Your task to perform on an android device: Open Android settings Image 0: 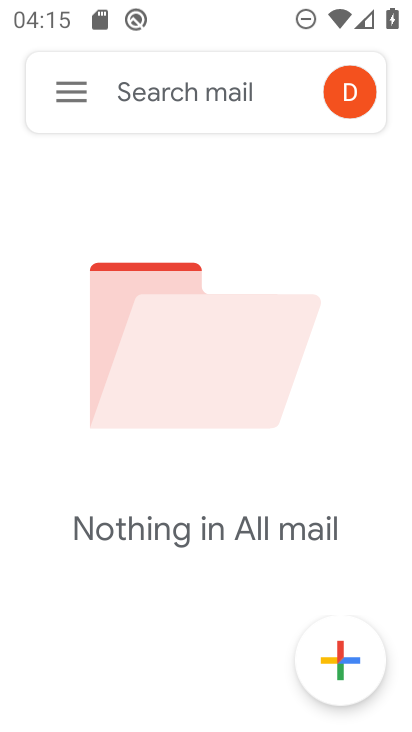
Step 0: press home button
Your task to perform on an android device: Open Android settings Image 1: 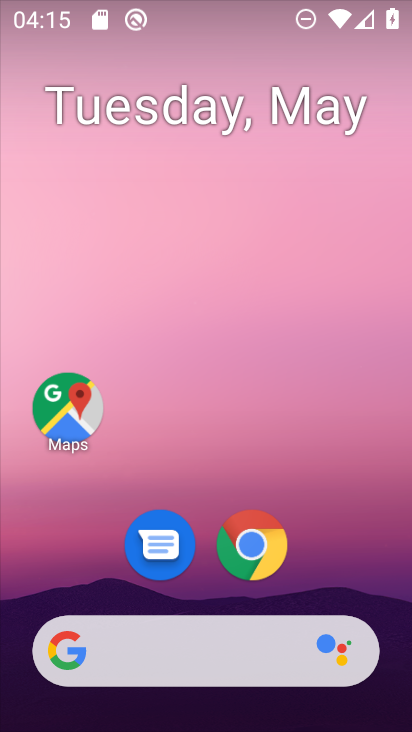
Step 1: drag from (397, 610) to (351, 64)
Your task to perform on an android device: Open Android settings Image 2: 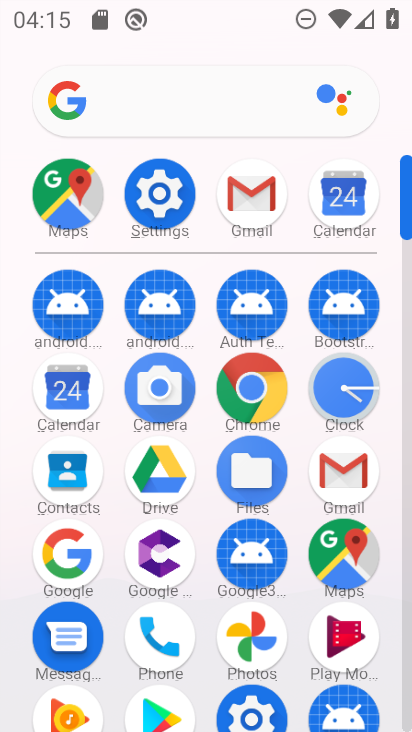
Step 2: click (406, 648)
Your task to perform on an android device: Open Android settings Image 3: 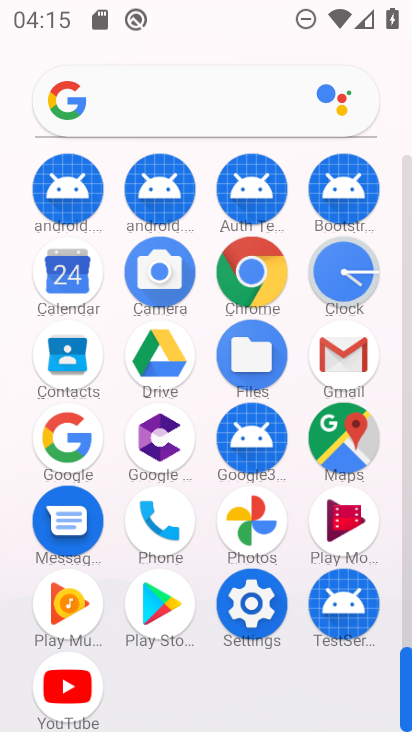
Step 3: click (245, 597)
Your task to perform on an android device: Open Android settings Image 4: 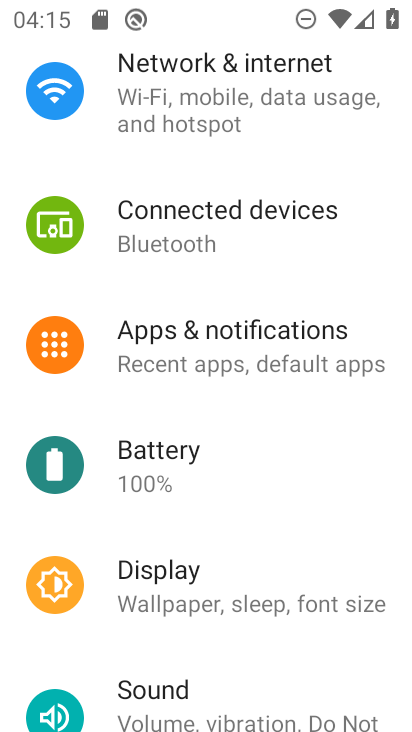
Step 4: drag from (337, 625) to (304, 235)
Your task to perform on an android device: Open Android settings Image 5: 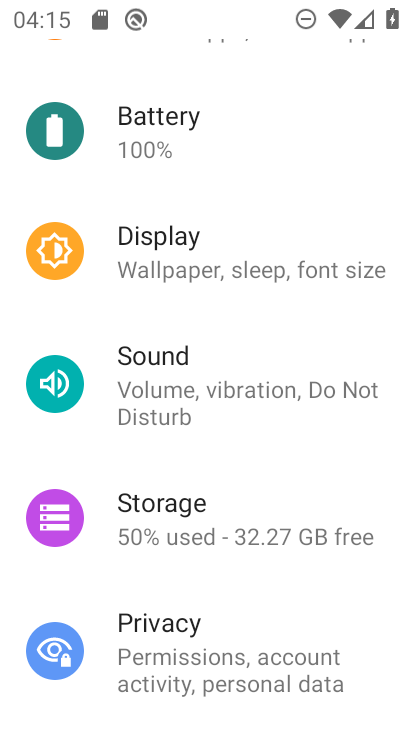
Step 5: drag from (289, 599) to (301, 147)
Your task to perform on an android device: Open Android settings Image 6: 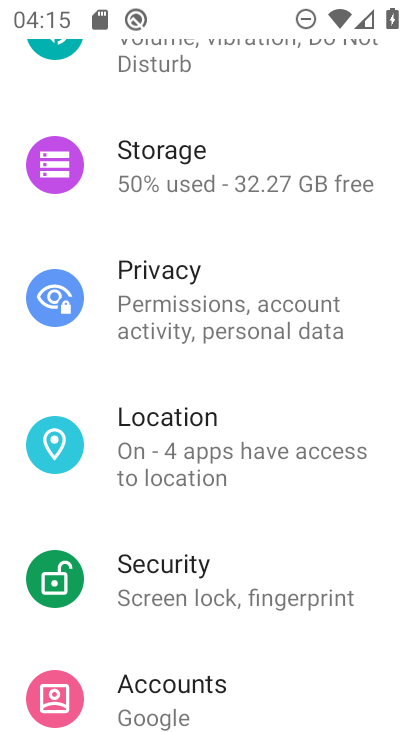
Step 6: drag from (282, 567) to (304, 232)
Your task to perform on an android device: Open Android settings Image 7: 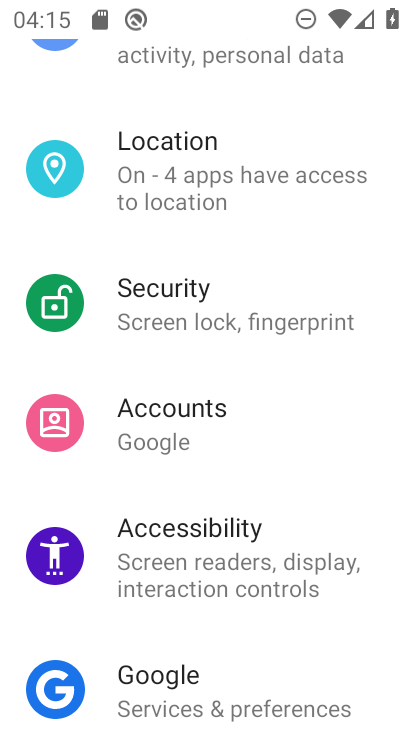
Step 7: drag from (308, 581) to (289, 142)
Your task to perform on an android device: Open Android settings Image 8: 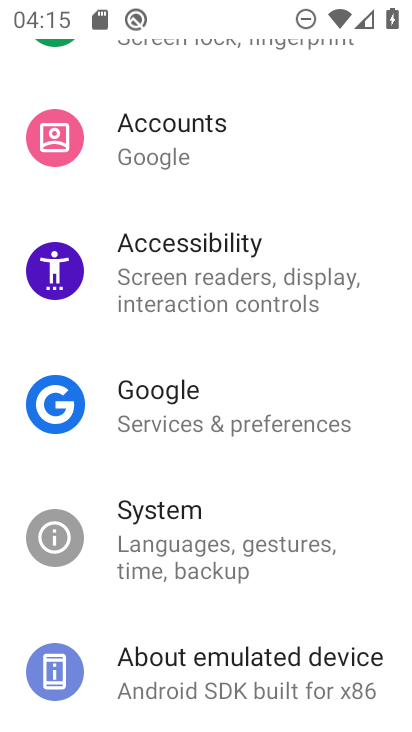
Step 8: drag from (242, 638) to (245, 382)
Your task to perform on an android device: Open Android settings Image 9: 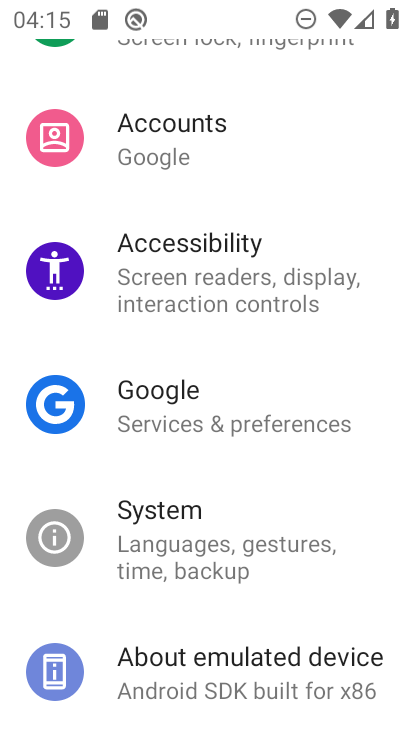
Step 9: click (178, 682)
Your task to perform on an android device: Open Android settings Image 10: 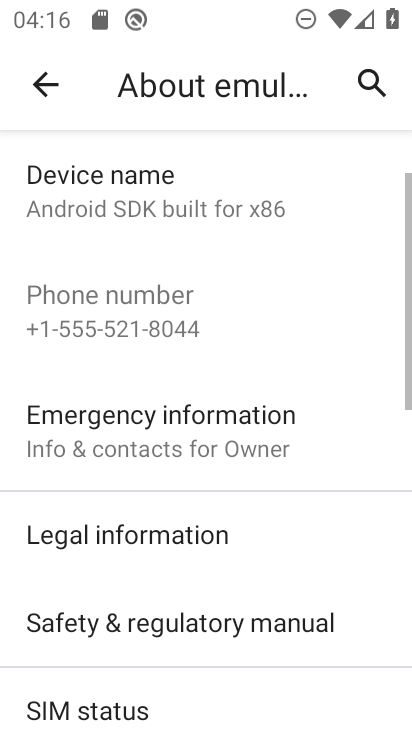
Step 10: task complete